Your task to perform on an android device: see creations saved in the google photos Image 0: 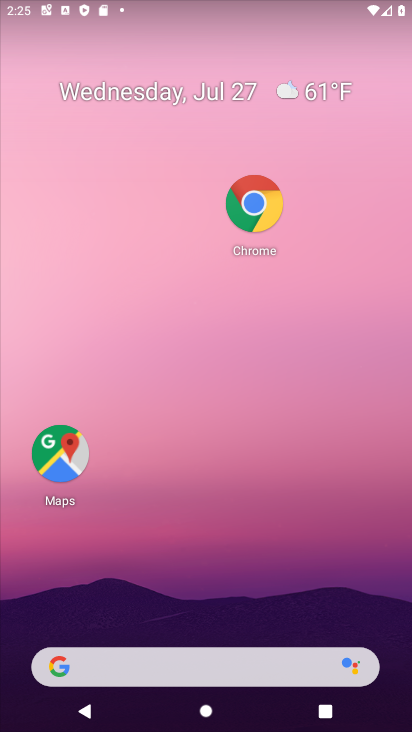
Step 0: drag from (183, 609) to (194, 171)
Your task to perform on an android device: see creations saved in the google photos Image 1: 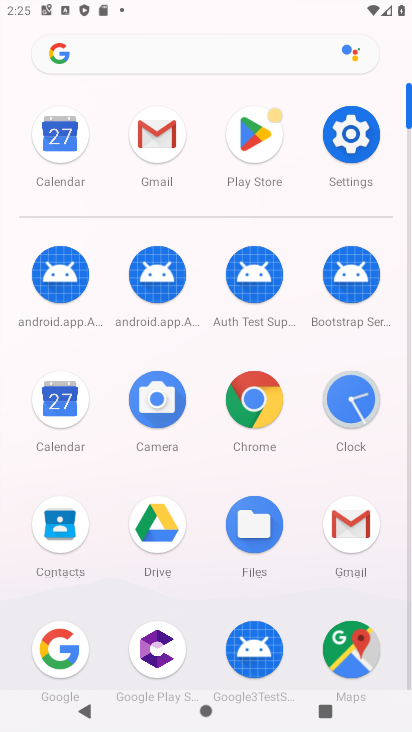
Step 1: drag from (199, 567) to (229, 314)
Your task to perform on an android device: see creations saved in the google photos Image 2: 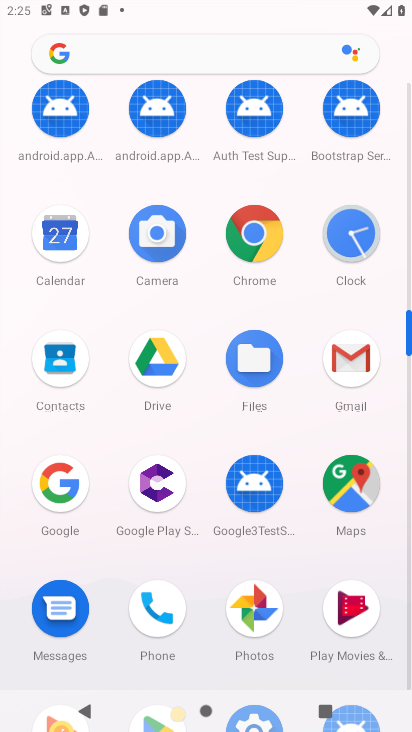
Step 2: click (244, 622)
Your task to perform on an android device: see creations saved in the google photos Image 3: 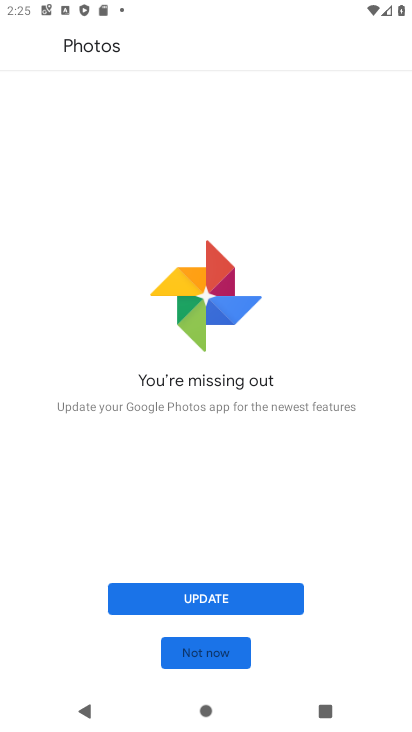
Step 3: click (187, 661)
Your task to perform on an android device: see creations saved in the google photos Image 4: 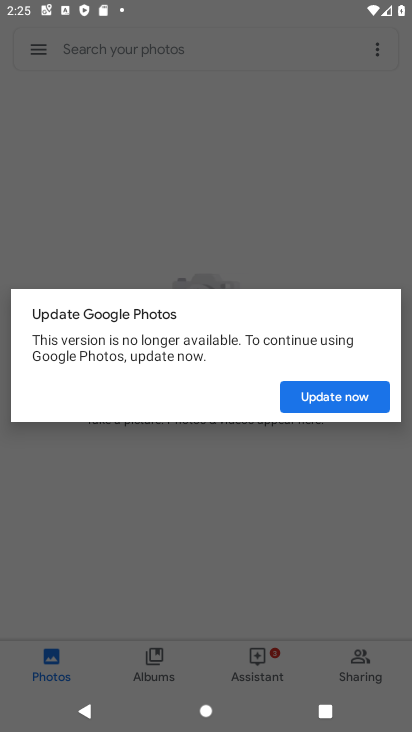
Step 4: click (306, 403)
Your task to perform on an android device: see creations saved in the google photos Image 5: 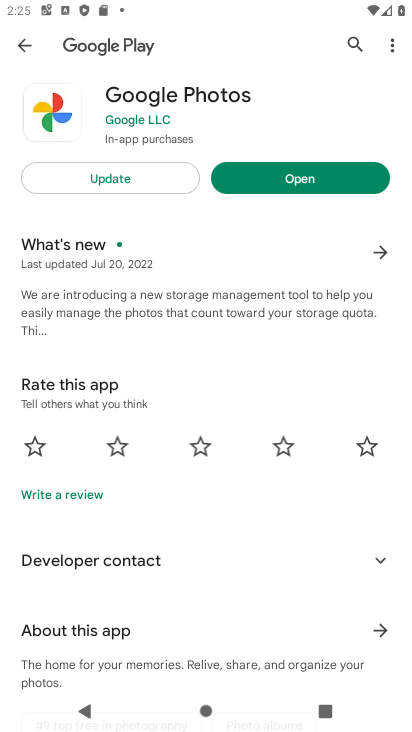
Step 5: click (244, 180)
Your task to perform on an android device: see creations saved in the google photos Image 6: 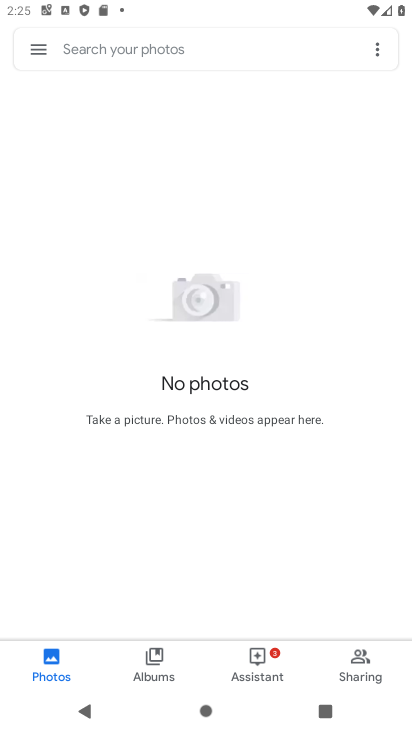
Step 6: click (175, 49)
Your task to perform on an android device: see creations saved in the google photos Image 7: 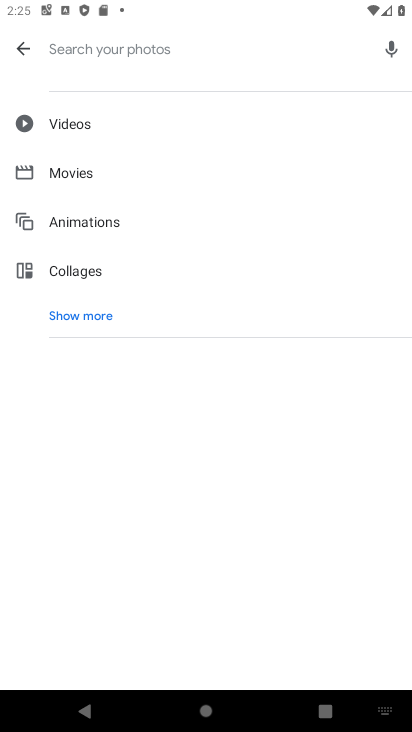
Step 7: click (90, 301)
Your task to perform on an android device: see creations saved in the google photos Image 8: 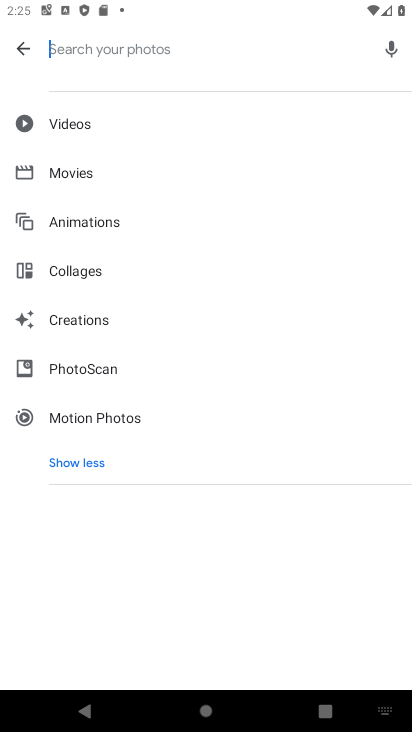
Step 8: click (87, 315)
Your task to perform on an android device: see creations saved in the google photos Image 9: 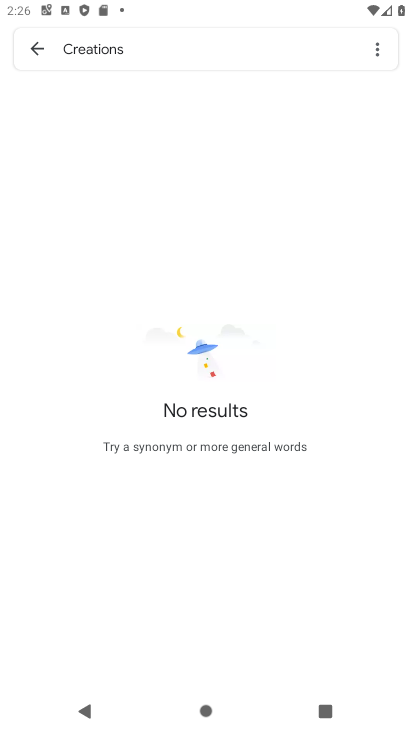
Step 9: task complete